Your task to perform on an android device: open app "Life360: Find Family & Friends" (install if not already installed) and enter user name: "gusts@gmail.com" and password: "assurers" Image 0: 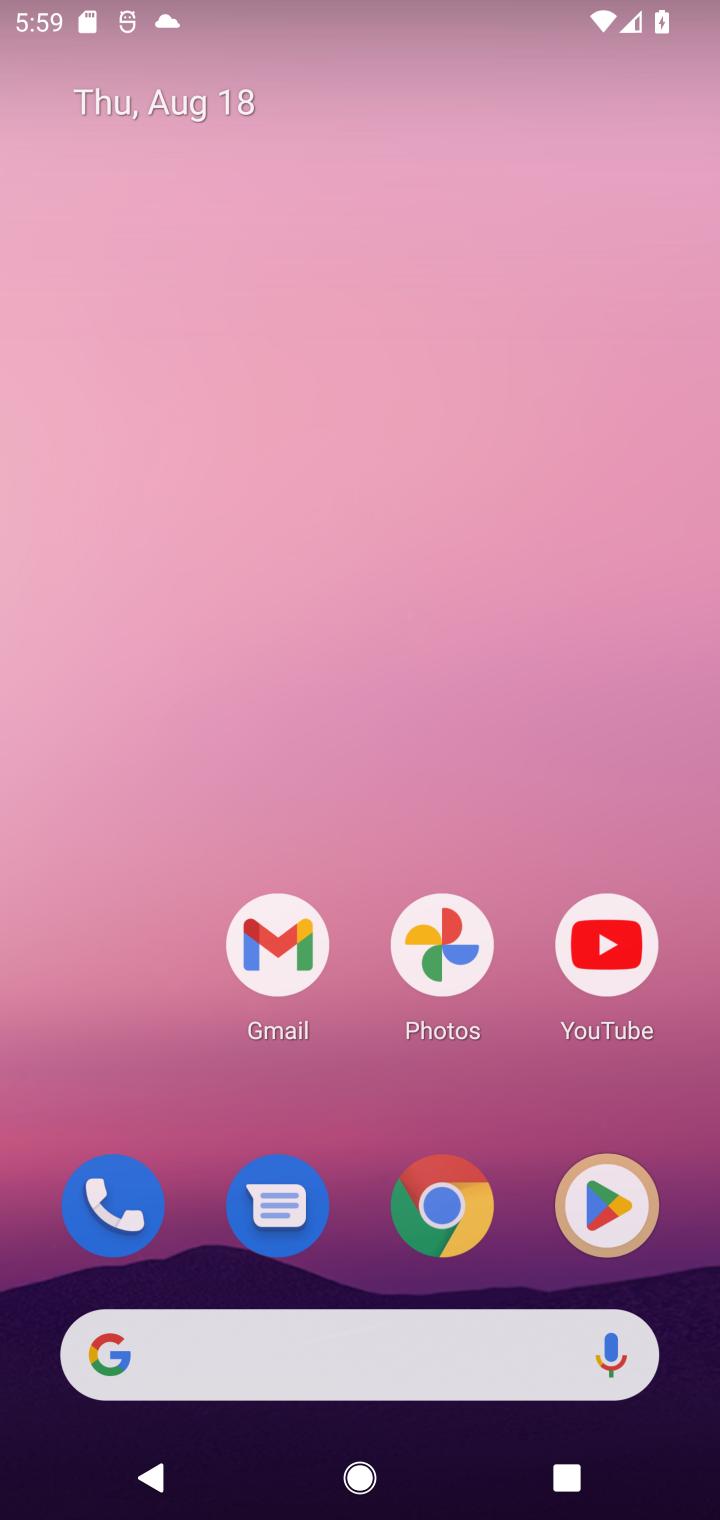
Step 0: press home button
Your task to perform on an android device: open app "Life360: Find Family & Friends" (install if not already installed) and enter user name: "gusts@gmail.com" and password: "assurers" Image 1: 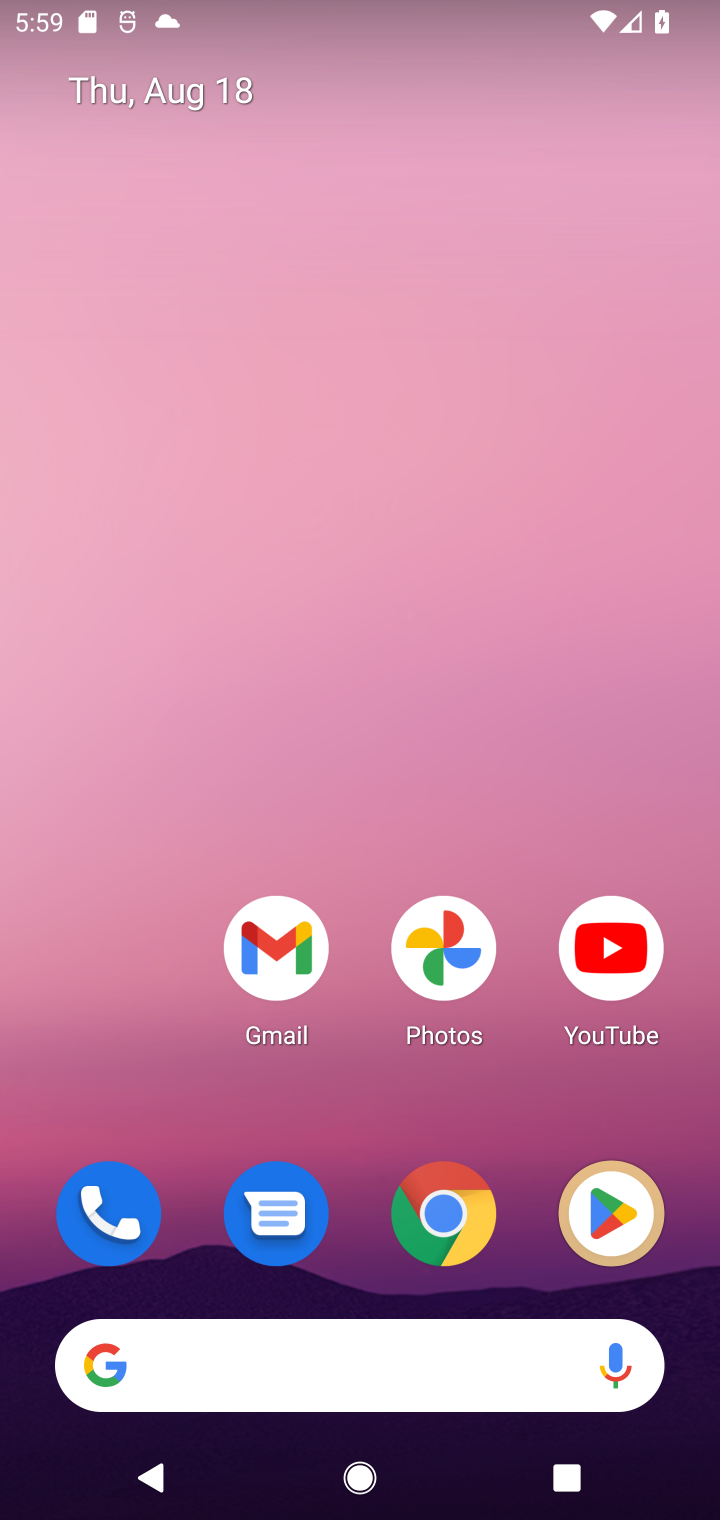
Step 1: press home button
Your task to perform on an android device: open app "Life360: Find Family & Friends" (install if not already installed) and enter user name: "gusts@gmail.com" and password: "assurers" Image 2: 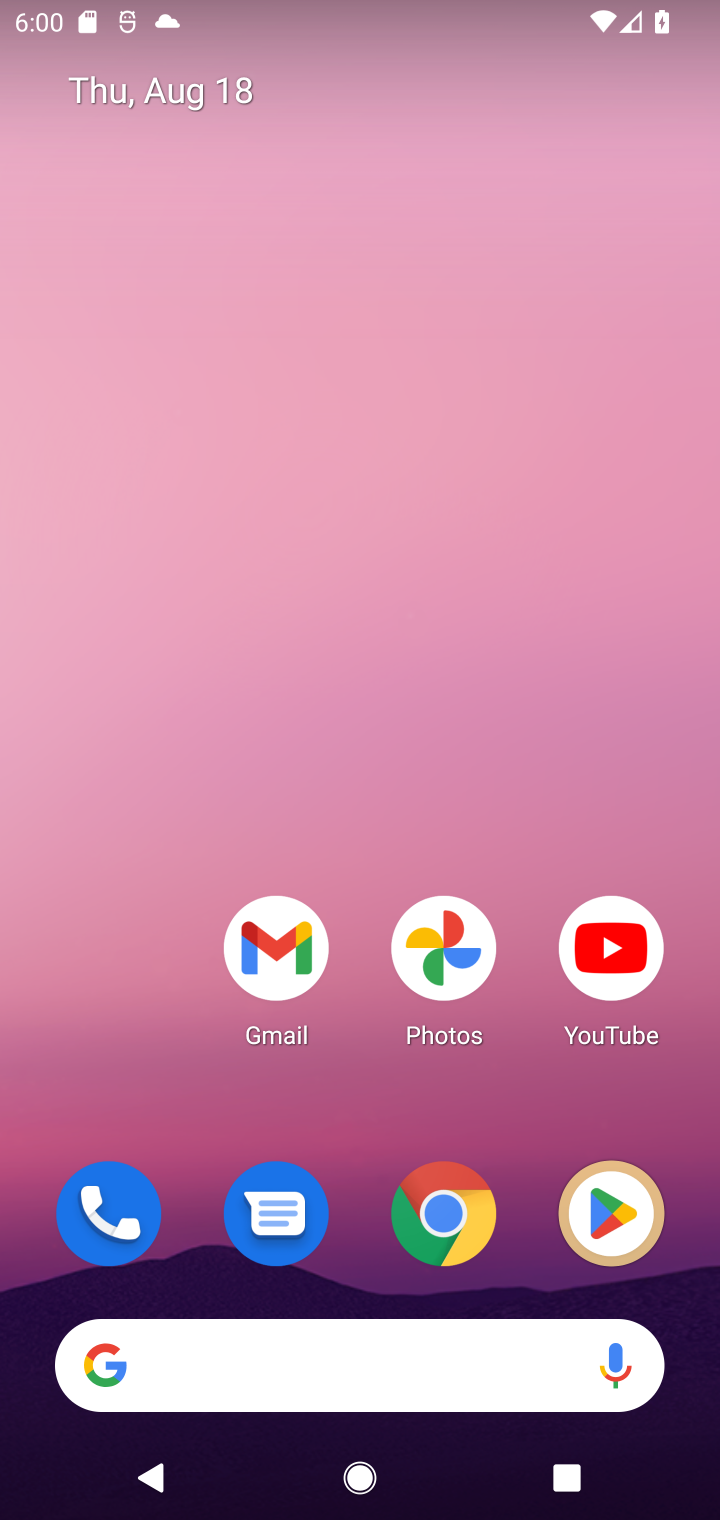
Step 2: click (607, 1212)
Your task to perform on an android device: open app "Life360: Find Family & Friends" (install if not already installed) and enter user name: "gusts@gmail.com" and password: "assurers" Image 3: 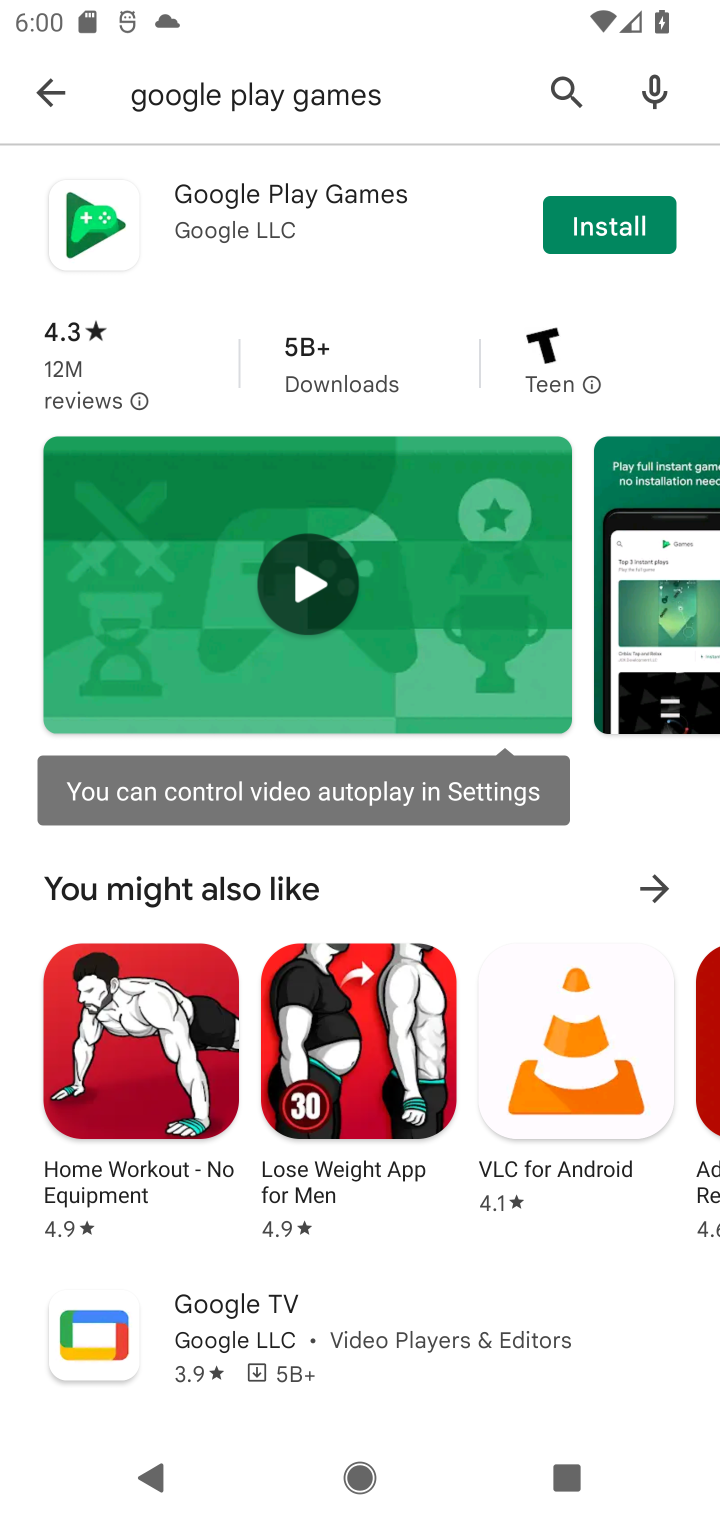
Step 3: click (565, 91)
Your task to perform on an android device: open app "Life360: Find Family & Friends" (install if not already installed) and enter user name: "gusts@gmail.com" and password: "assurers" Image 4: 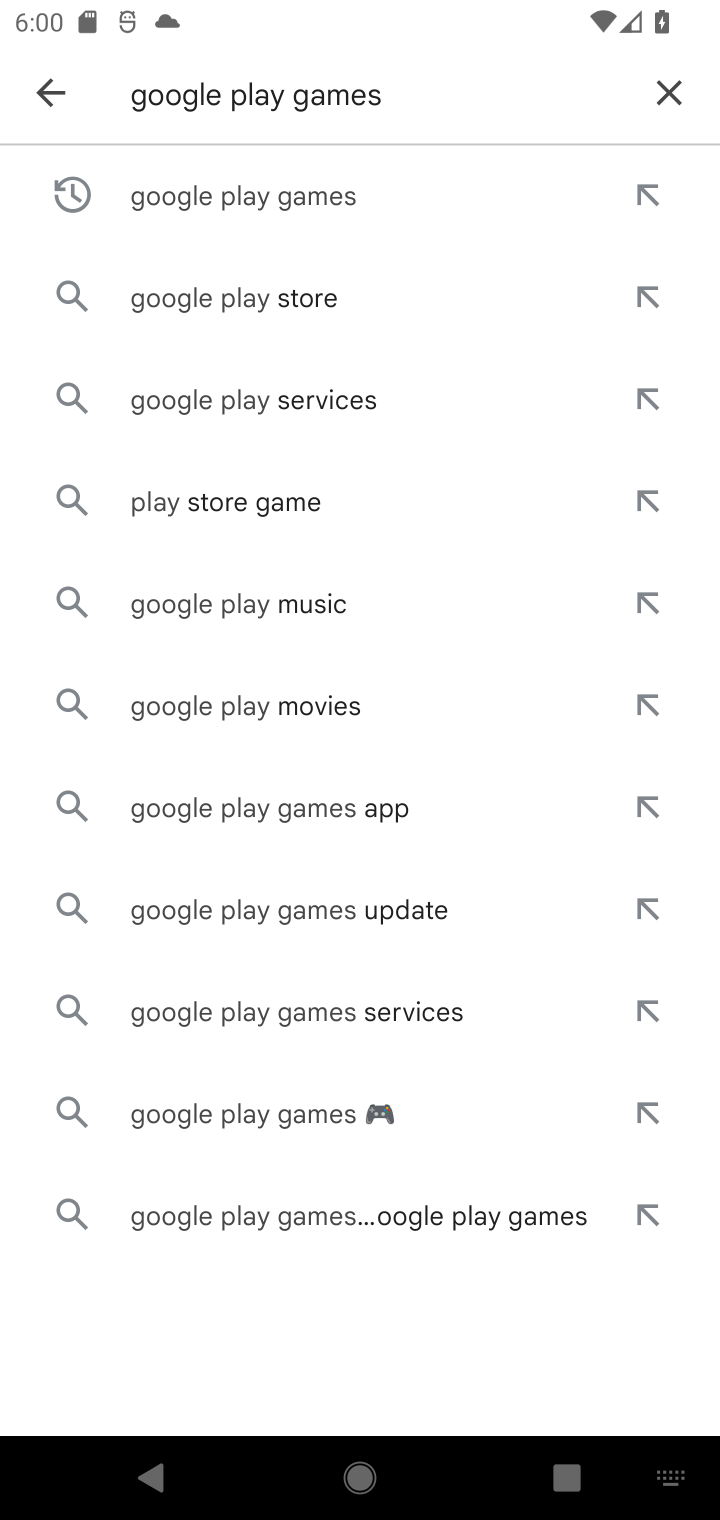
Step 4: click (666, 90)
Your task to perform on an android device: open app "Life360: Find Family & Friends" (install if not already installed) and enter user name: "gusts@gmail.com" and password: "assurers" Image 5: 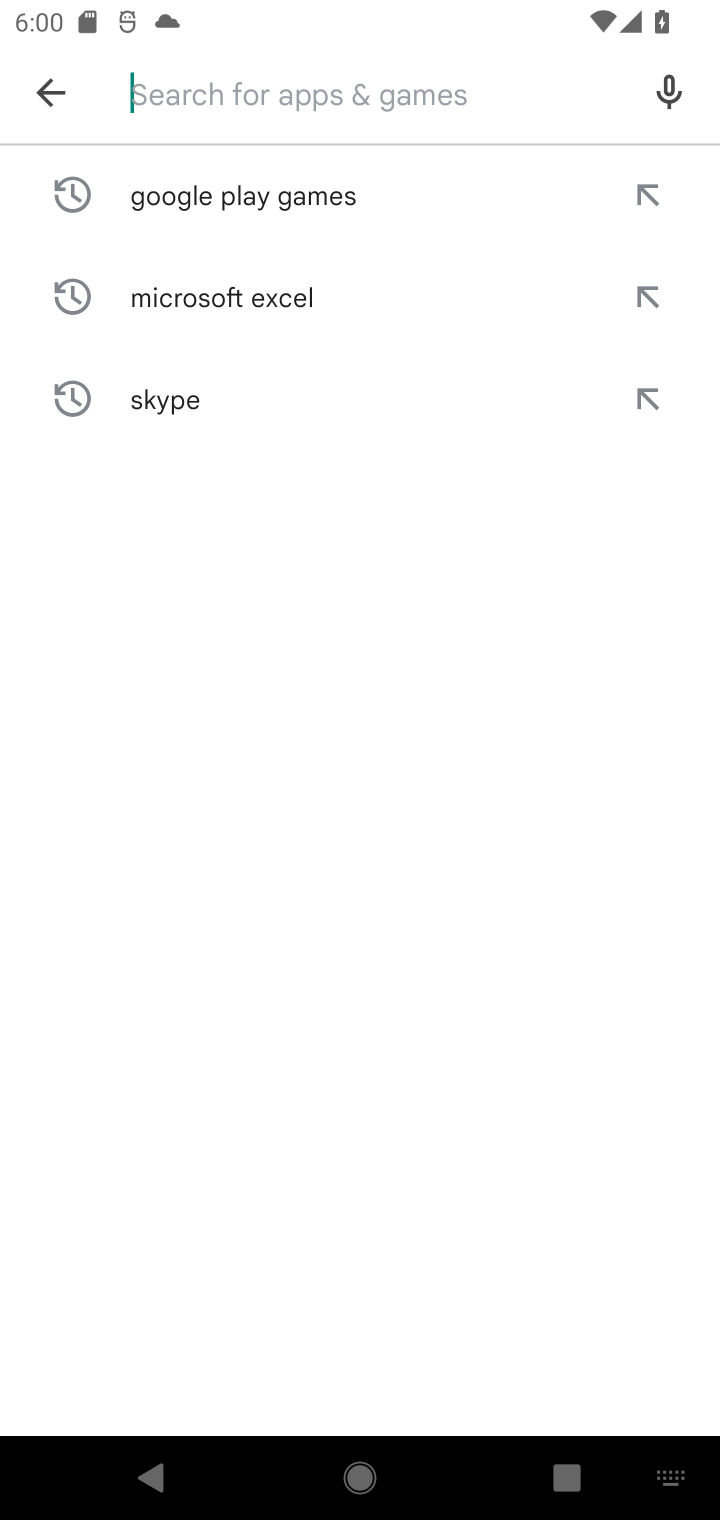
Step 5: type "Life360: Find Family & Friends"
Your task to perform on an android device: open app "Life360: Find Family & Friends" (install if not already installed) and enter user name: "gusts@gmail.com" and password: "assurers" Image 6: 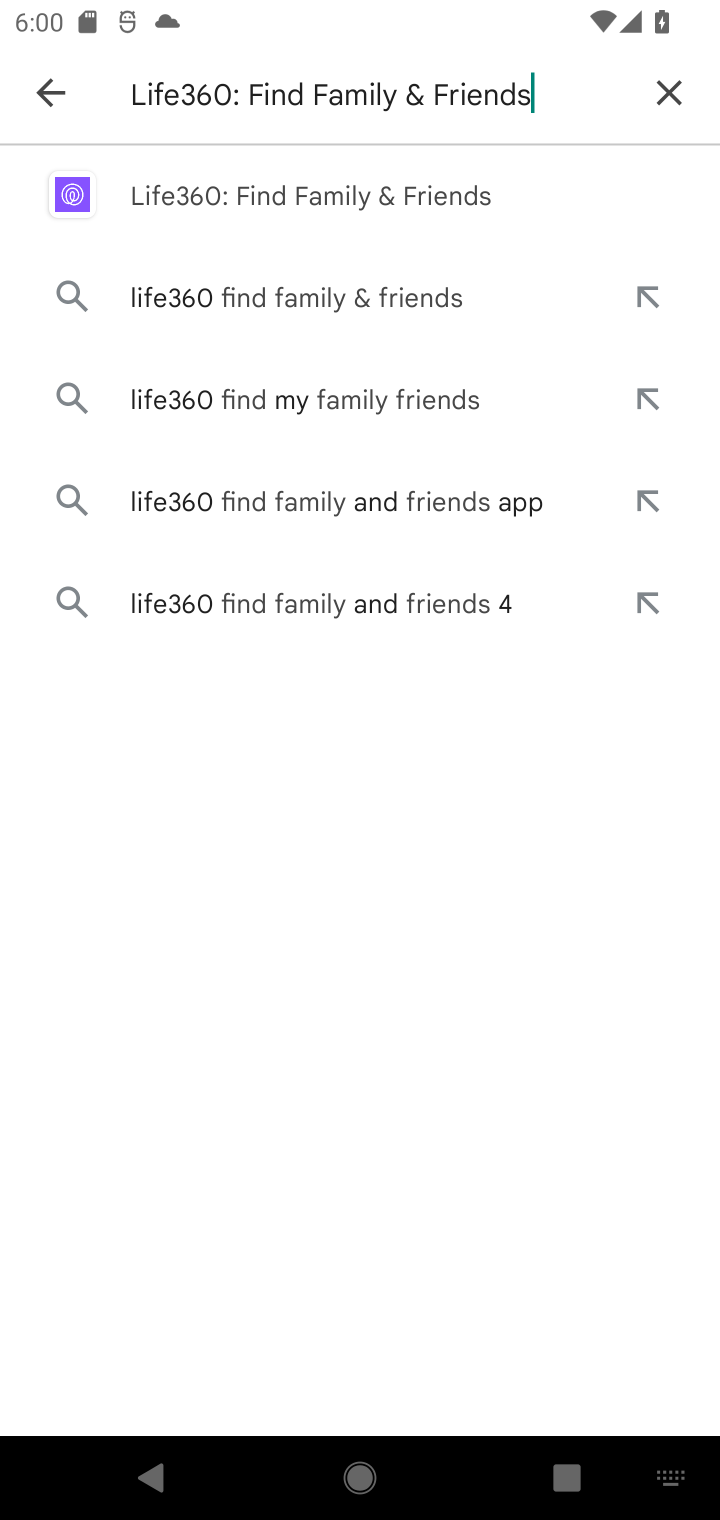
Step 6: click (274, 197)
Your task to perform on an android device: open app "Life360: Find Family & Friends" (install if not already installed) and enter user name: "gusts@gmail.com" and password: "assurers" Image 7: 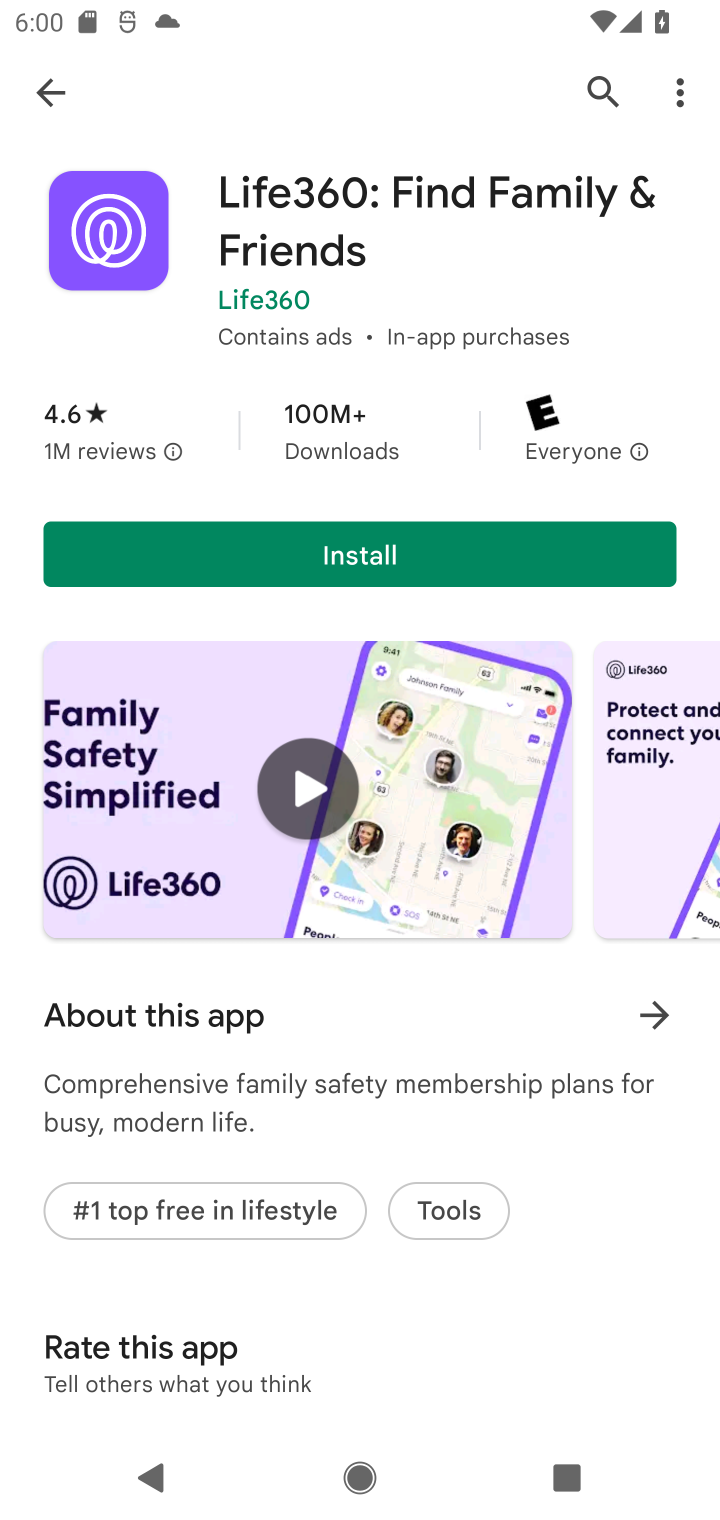
Step 7: click (361, 550)
Your task to perform on an android device: open app "Life360: Find Family & Friends" (install if not already installed) and enter user name: "gusts@gmail.com" and password: "assurers" Image 8: 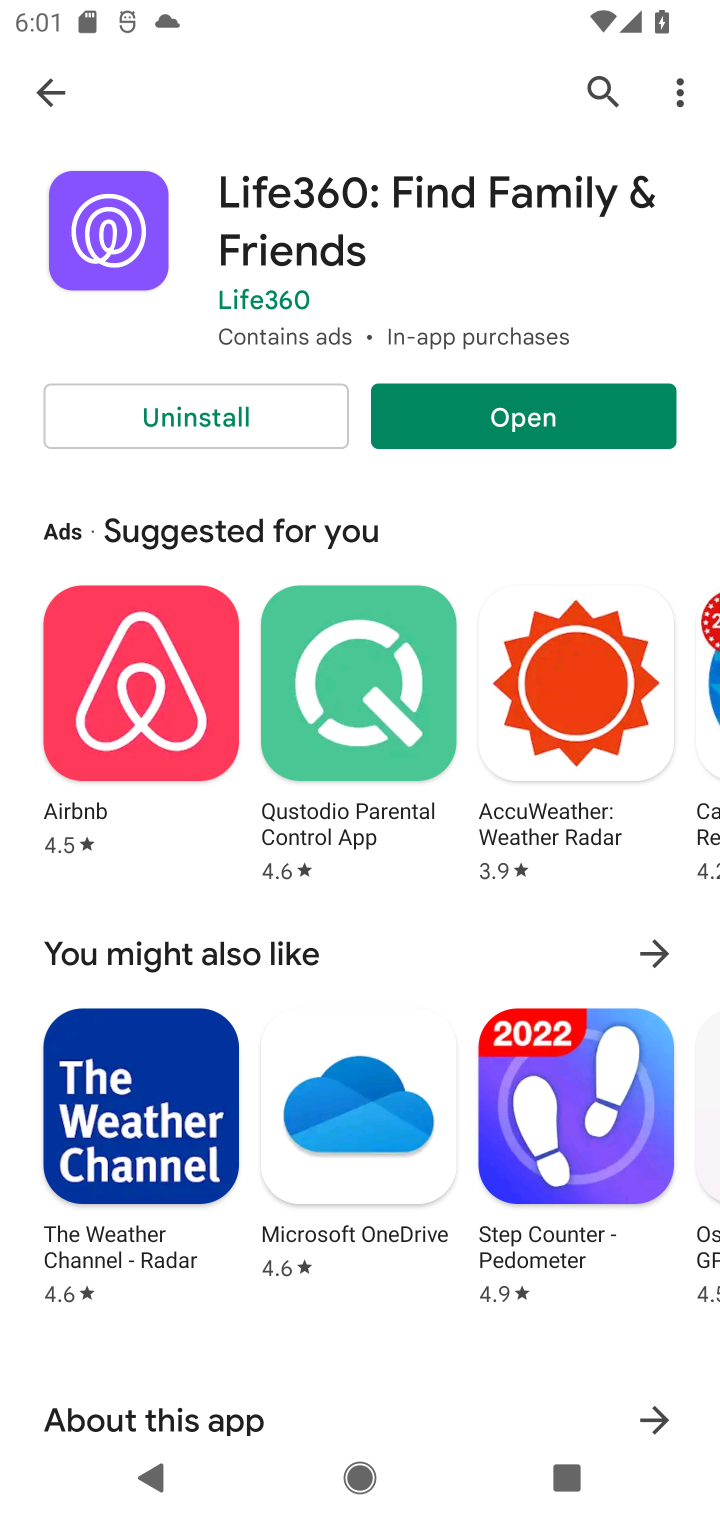
Step 8: click (511, 404)
Your task to perform on an android device: open app "Life360: Find Family & Friends" (install if not already installed) and enter user name: "gusts@gmail.com" and password: "assurers" Image 9: 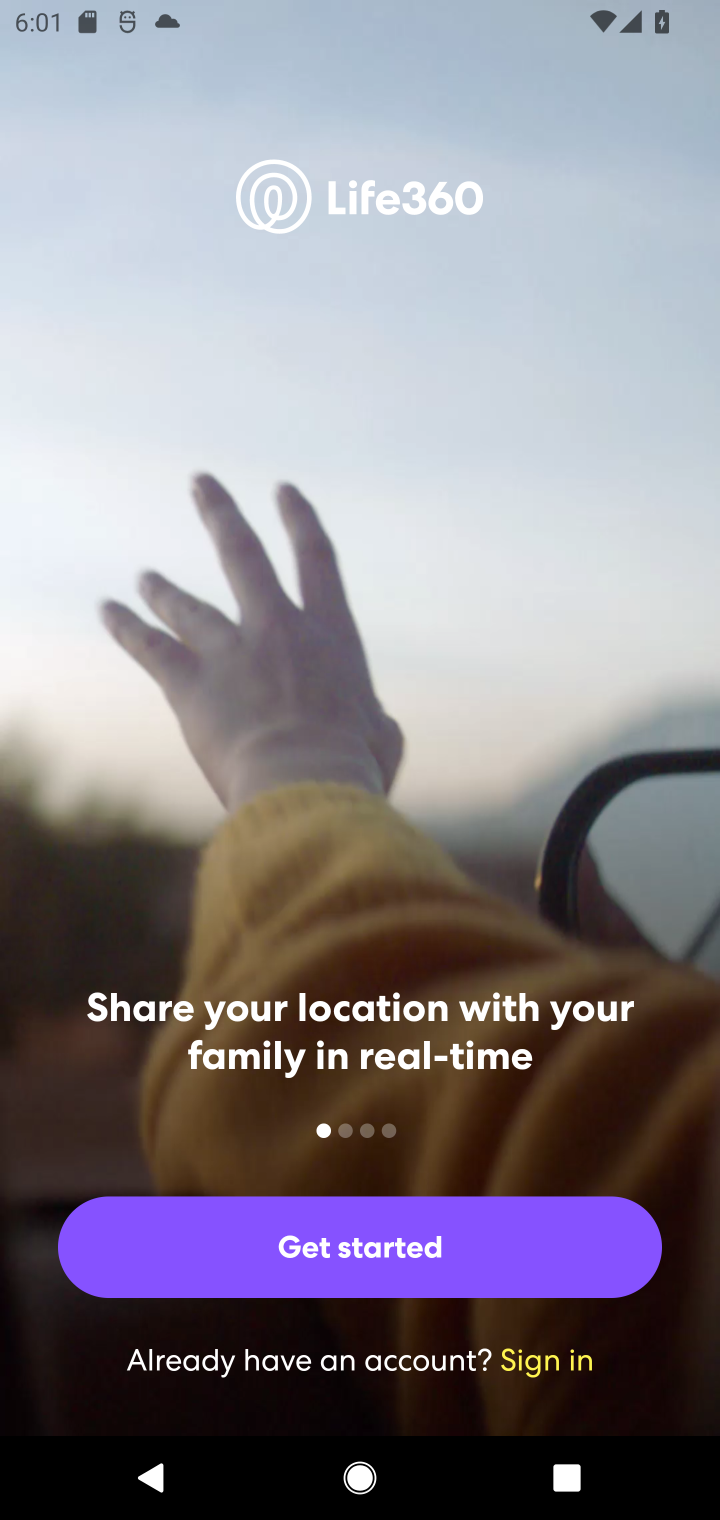
Step 9: click (357, 1268)
Your task to perform on an android device: open app "Life360: Find Family & Friends" (install if not already installed) and enter user name: "gusts@gmail.com" and password: "assurers" Image 10: 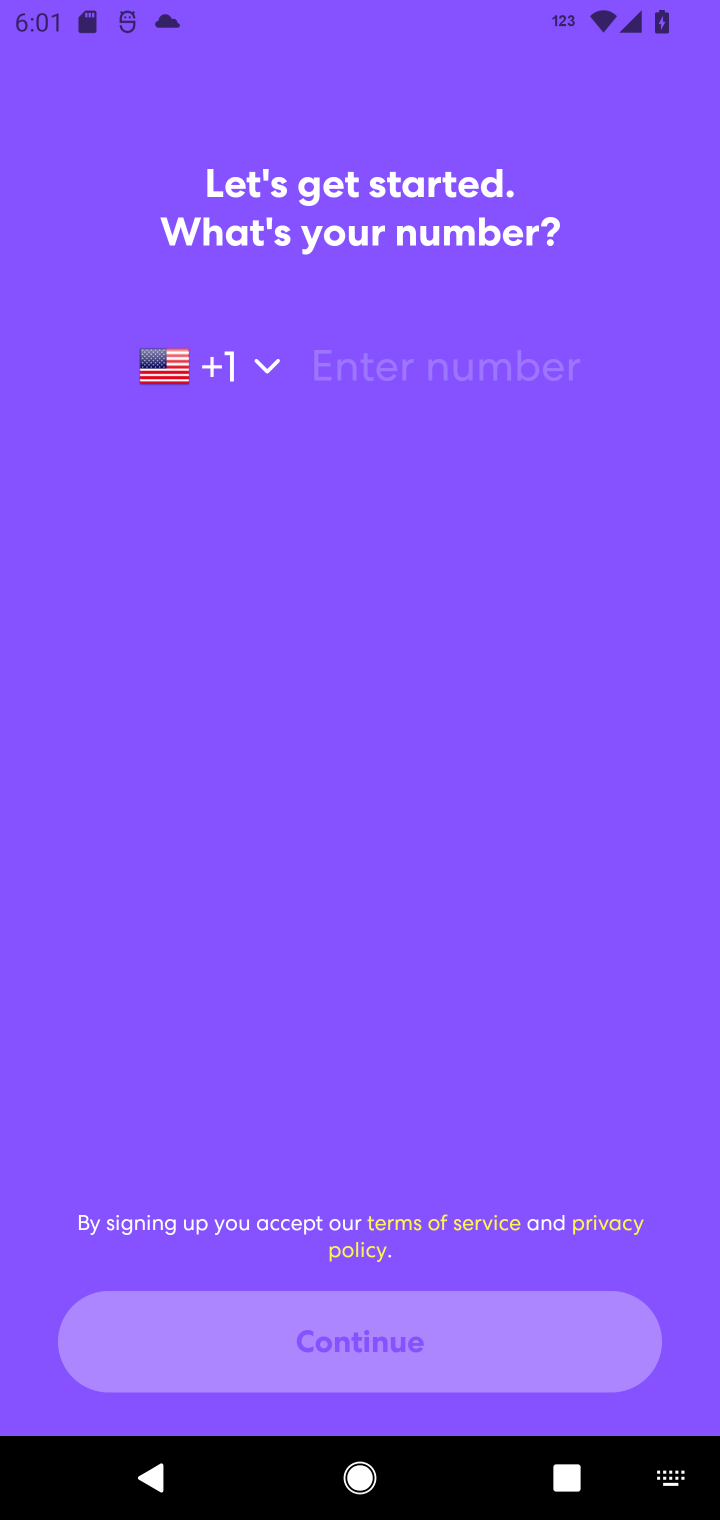
Step 10: task complete